Your task to perform on an android device: Go to Android settings Image 0: 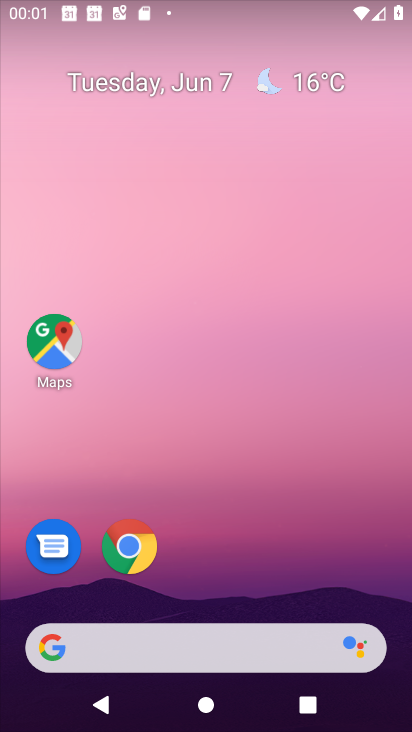
Step 0: drag from (219, 591) to (314, 104)
Your task to perform on an android device: Go to Android settings Image 1: 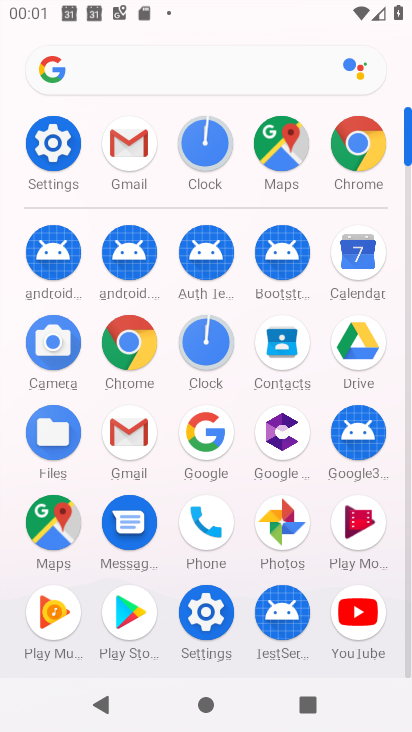
Step 1: click (69, 159)
Your task to perform on an android device: Go to Android settings Image 2: 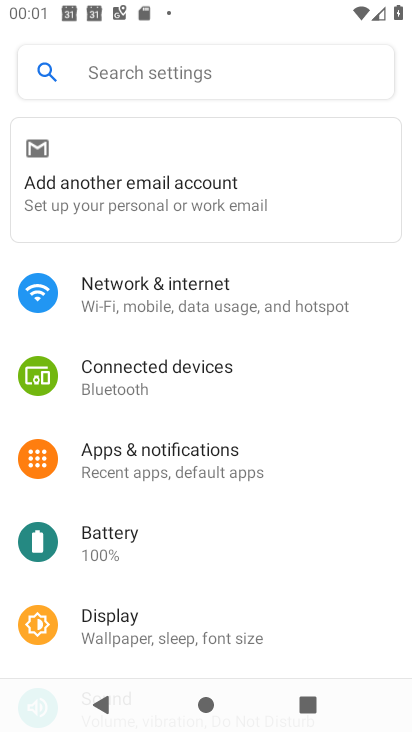
Step 2: drag from (140, 569) to (159, 446)
Your task to perform on an android device: Go to Android settings Image 3: 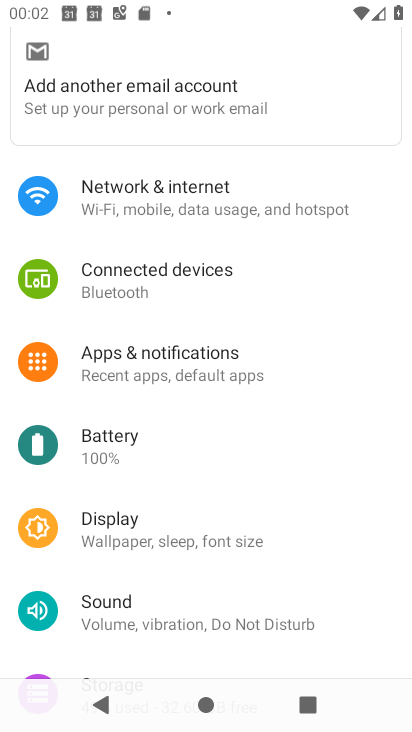
Step 3: drag from (145, 570) to (221, 258)
Your task to perform on an android device: Go to Android settings Image 4: 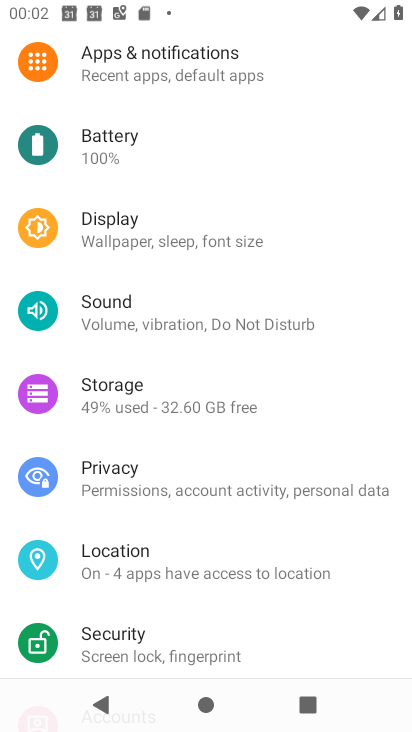
Step 4: drag from (161, 530) to (191, 335)
Your task to perform on an android device: Go to Android settings Image 5: 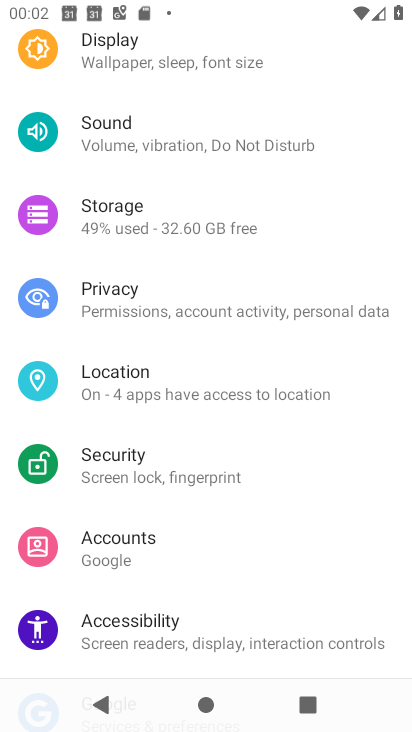
Step 5: drag from (149, 536) to (210, 301)
Your task to perform on an android device: Go to Android settings Image 6: 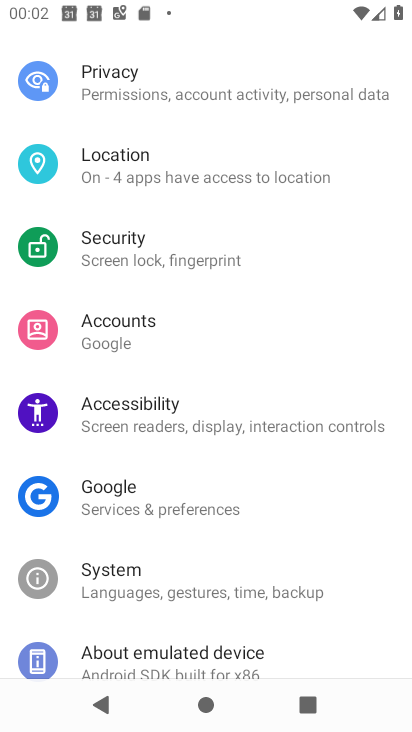
Step 6: drag from (173, 515) to (200, 248)
Your task to perform on an android device: Go to Android settings Image 7: 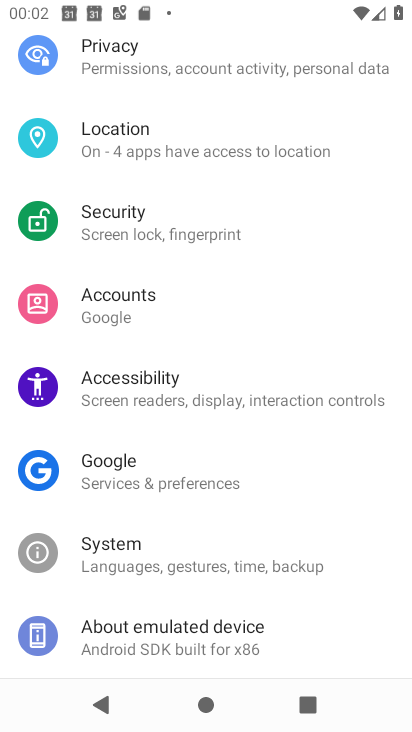
Step 7: drag from (178, 494) to (222, 271)
Your task to perform on an android device: Go to Android settings Image 8: 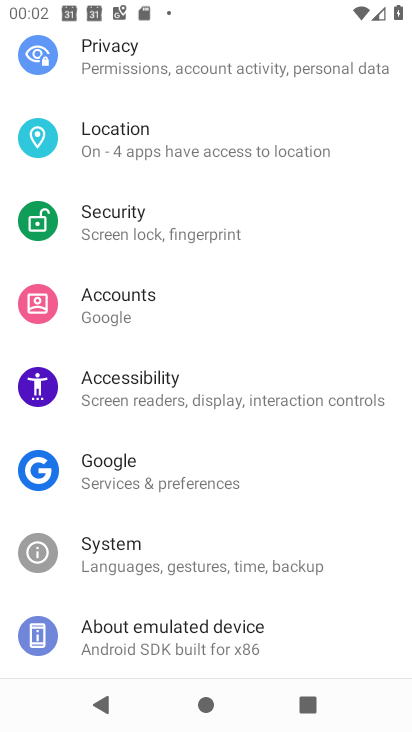
Step 8: click (122, 638)
Your task to perform on an android device: Go to Android settings Image 9: 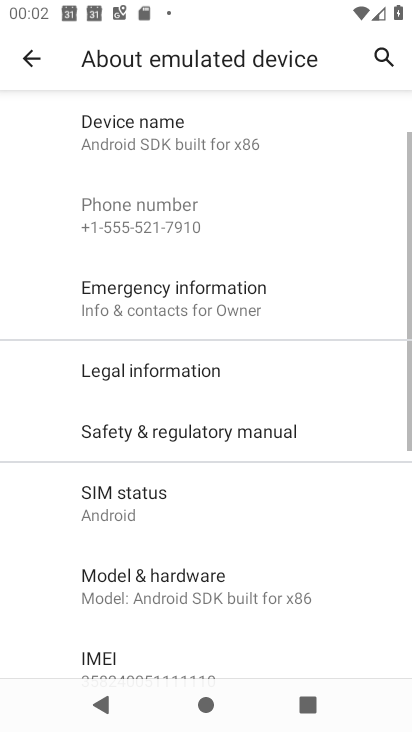
Step 9: task complete